Your task to perform on an android device: Open Google Chrome Image 0: 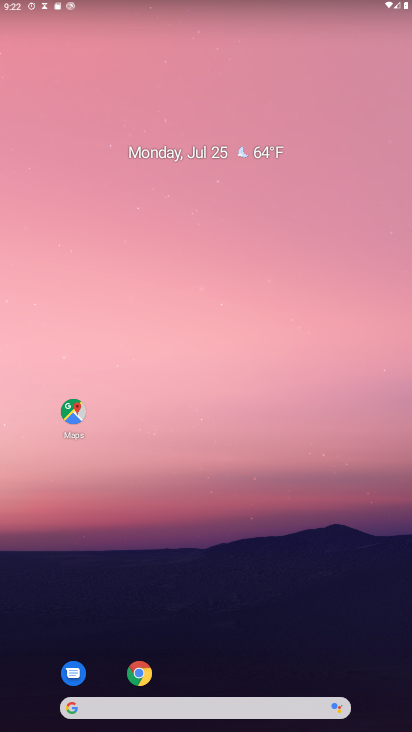
Step 0: press home button
Your task to perform on an android device: Open Google Chrome Image 1: 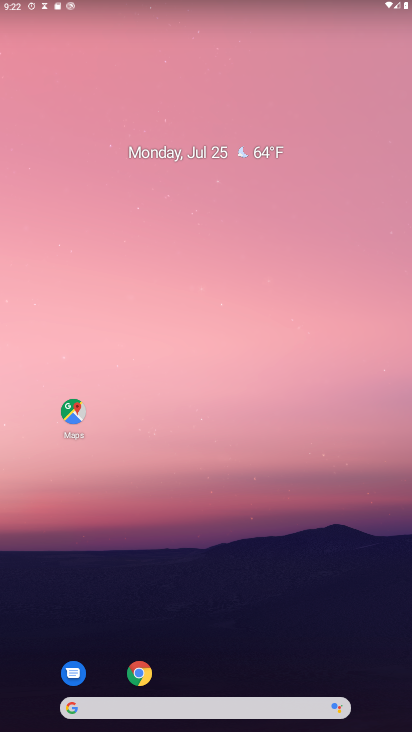
Step 1: click (136, 669)
Your task to perform on an android device: Open Google Chrome Image 2: 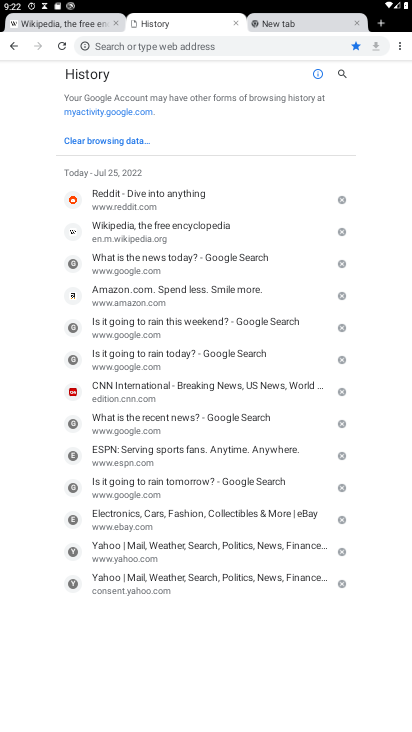
Step 2: click (292, 17)
Your task to perform on an android device: Open Google Chrome Image 3: 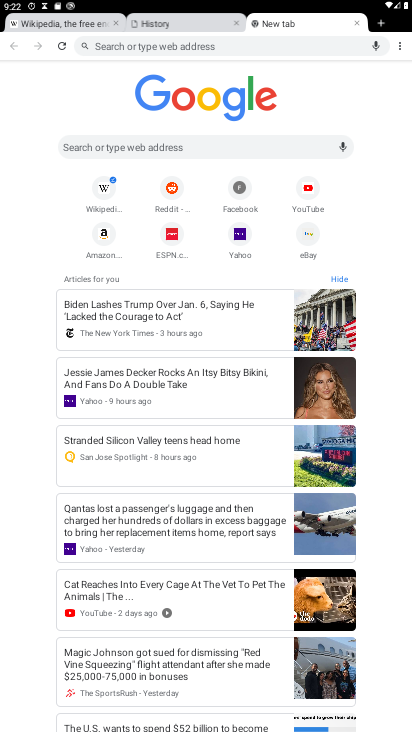
Step 3: task complete